Your task to perform on an android device: empty trash in the gmail app Image 0: 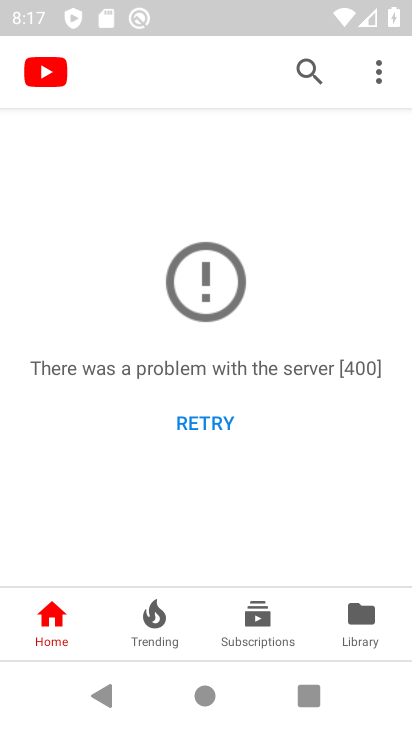
Step 0: press home button
Your task to perform on an android device: empty trash in the gmail app Image 1: 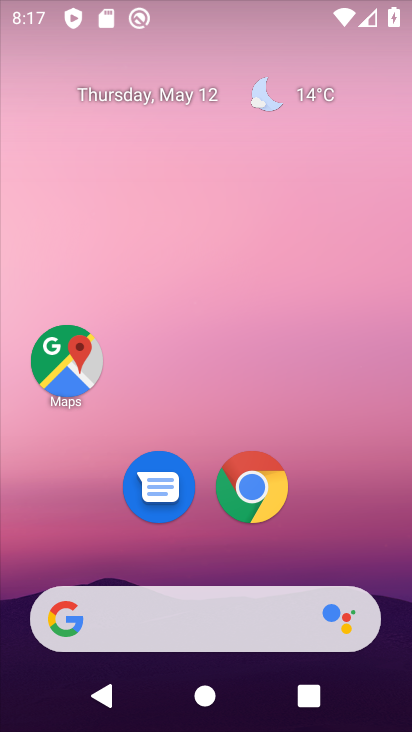
Step 1: drag from (15, 560) to (170, 203)
Your task to perform on an android device: empty trash in the gmail app Image 2: 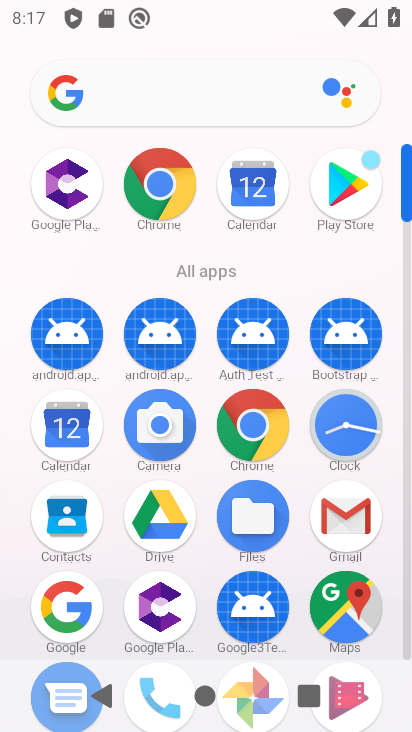
Step 2: click (365, 517)
Your task to perform on an android device: empty trash in the gmail app Image 3: 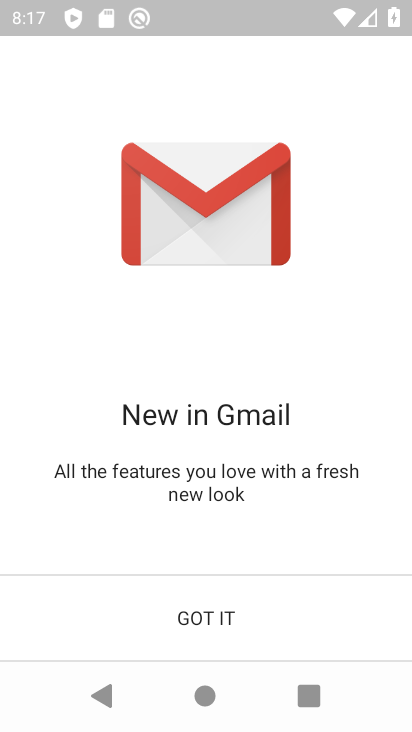
Step 3: click (214, 592)
Your task to perform on an android device: empty trash in the gmail app Image 4: 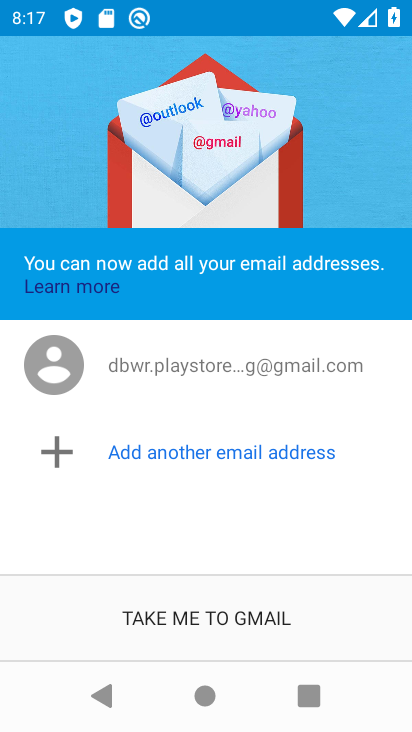
Step 4: click (214, 623)
Your task to perform on an android device: empty trash in the gmail app Image 5: 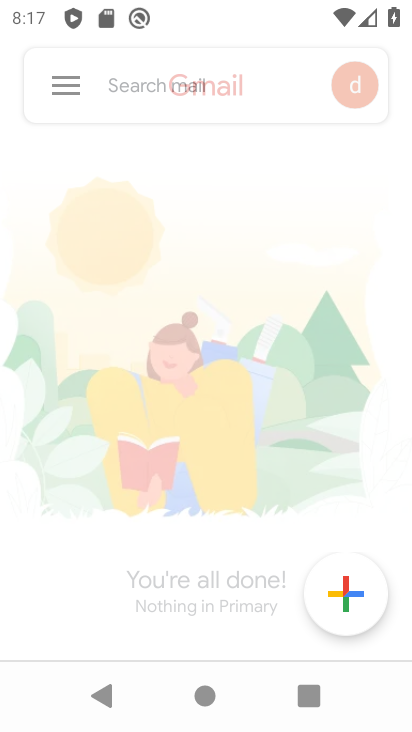
Step 5: click (61, 80)
Your task to perform on an android device: empty trash in the gmail app Image 6: 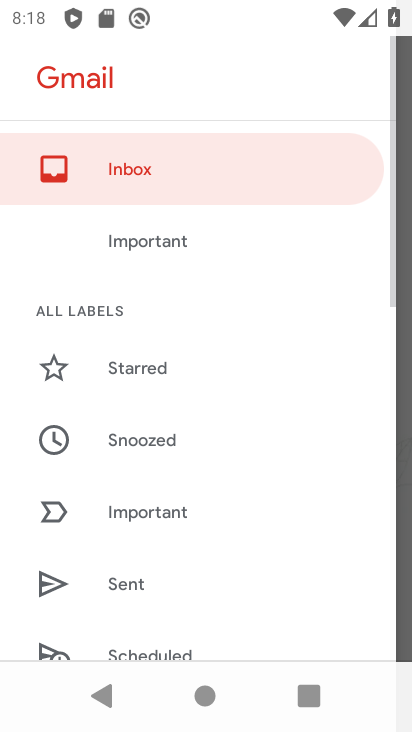
Step 6: drag from (122, 638) to (231, 211)
Your task to perform on an android device: empty trash in the gmail app Image 7: 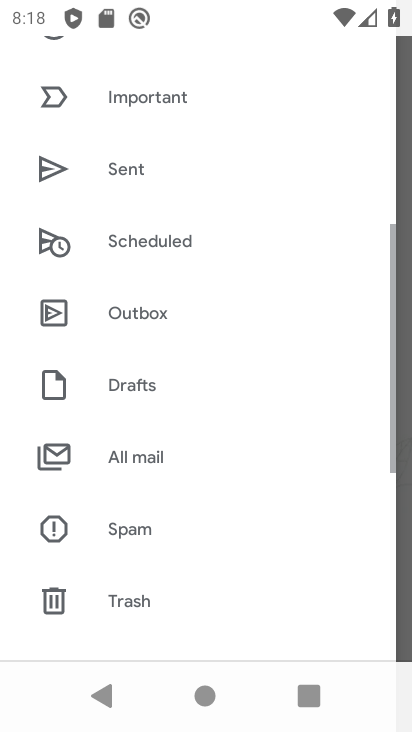
Step 7: click (67, 603)
Your task to perform on an android device: empty trash in the gmail app Image 8: 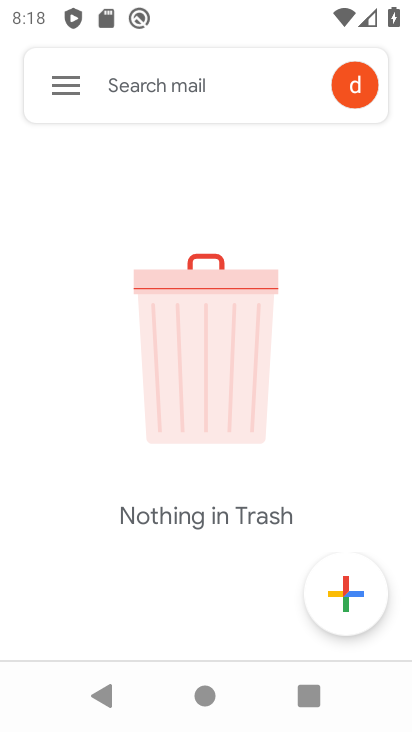
Step 8: task complete